Your task to perform on an android device: install app "TextNow: Call + Text Unlimited" Image 0: 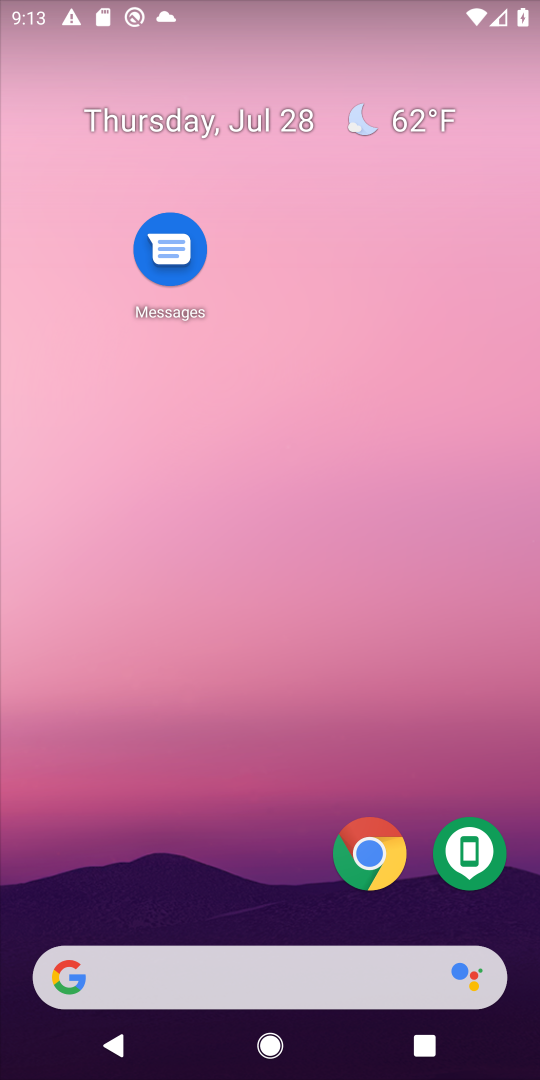
Step 0: click (320, 340)
Your task to perform on an android device: install app "TextNow: Call + Text Unlimited" Image 1: 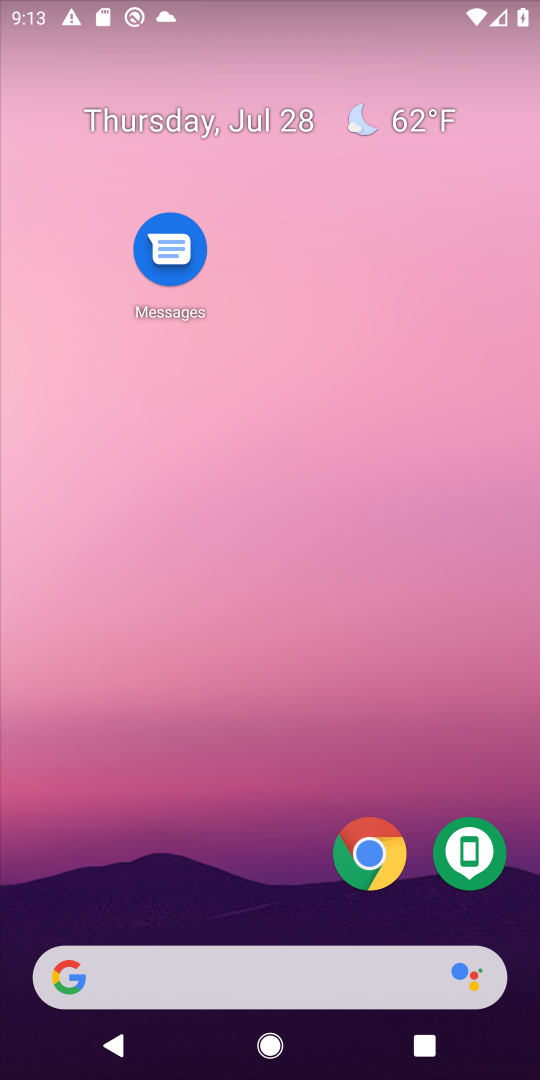
Step 1: click (284, 187)
Your task to perform on an android device: install app "TextNow: Call + Text Unlimited" Image 2: 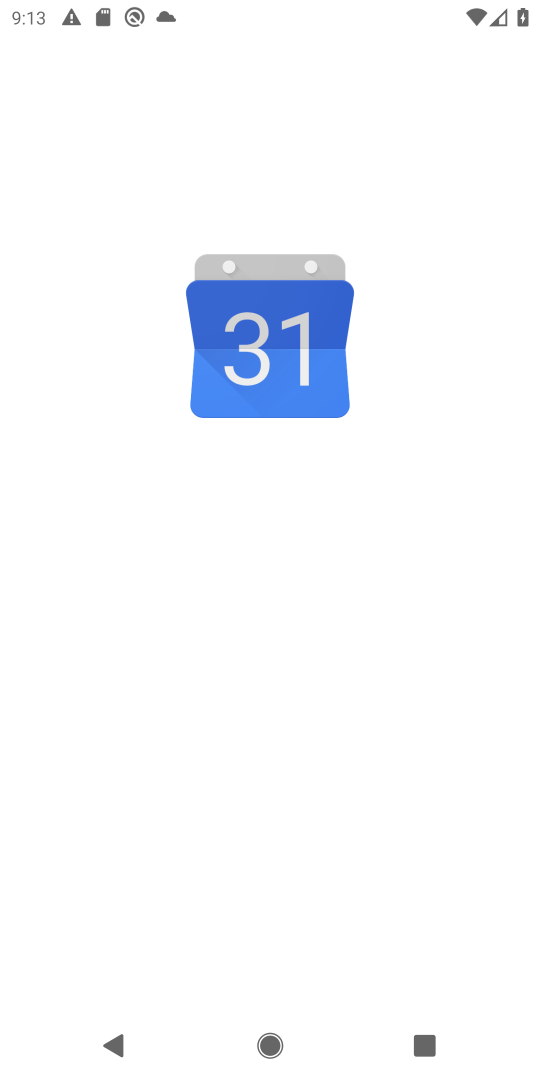
Step 2: drag from (251, 837) to (306, 333)
Your task to perform on an android device: install app "TextNow: Call + Text Unlimited" Image 3: 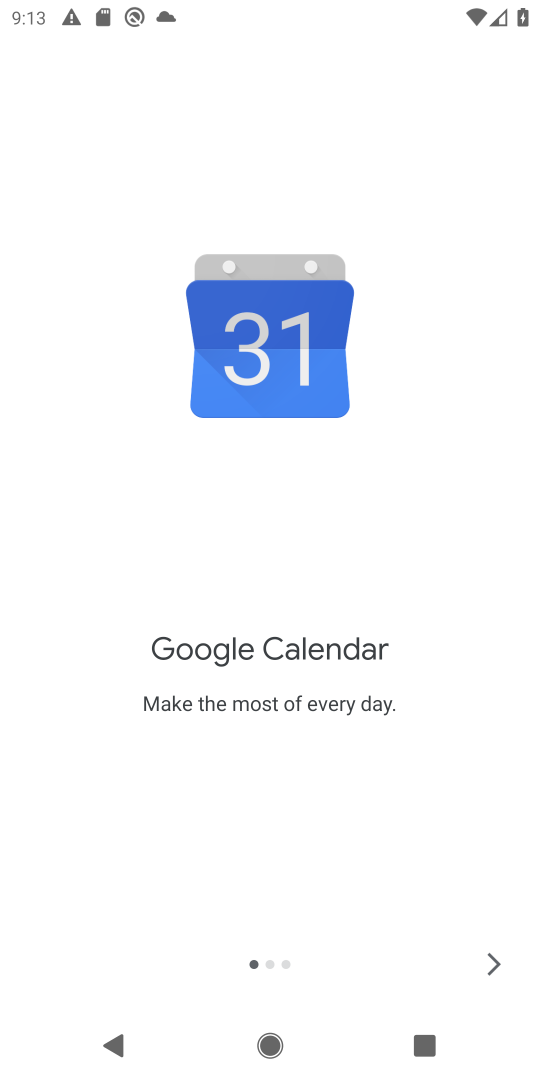
Step 3: press home button
Your task to perform on an android device: install app "TextNow: Call + Text Unlimited" Image 4: 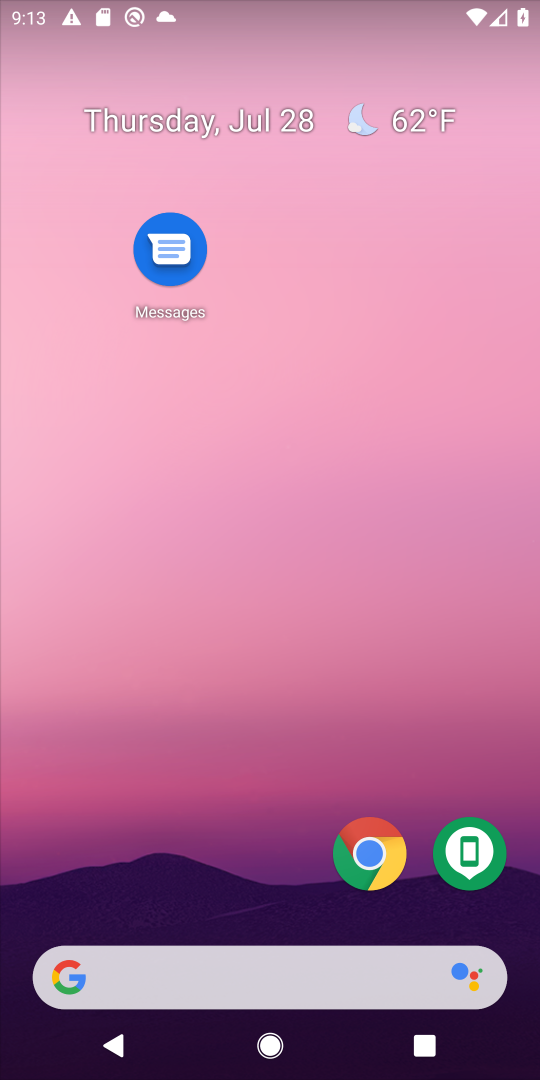
Step 4: drag from (247, 888) to (264, 296)
Your task to perform on an android device: install app "TextNow: Call + Text Unlimited" Image 5: 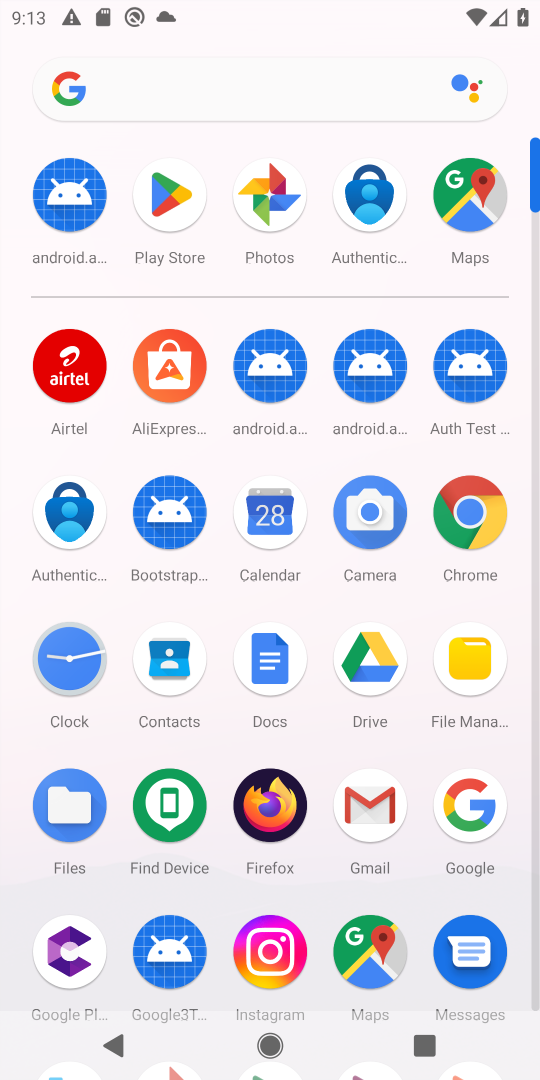
Step 5: click (168, 210)
Your task to perform on an android device: install app "TextNow: Call + Text Unlimited" Image 6: 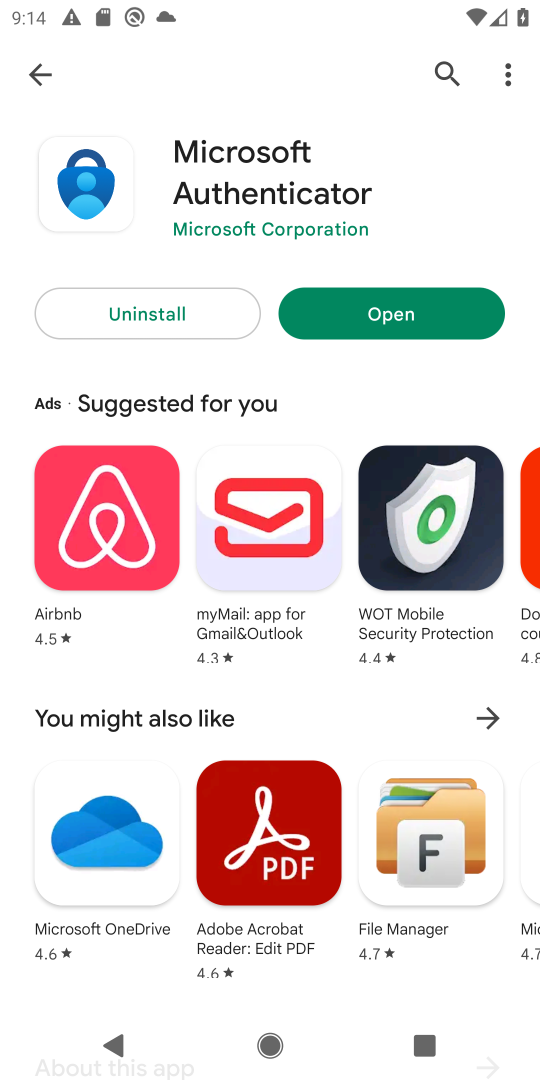
Step 6: click (48, 75)
Your task to perform on an android device: install app "TextNow: Call + Text Unlimited" Image 7: 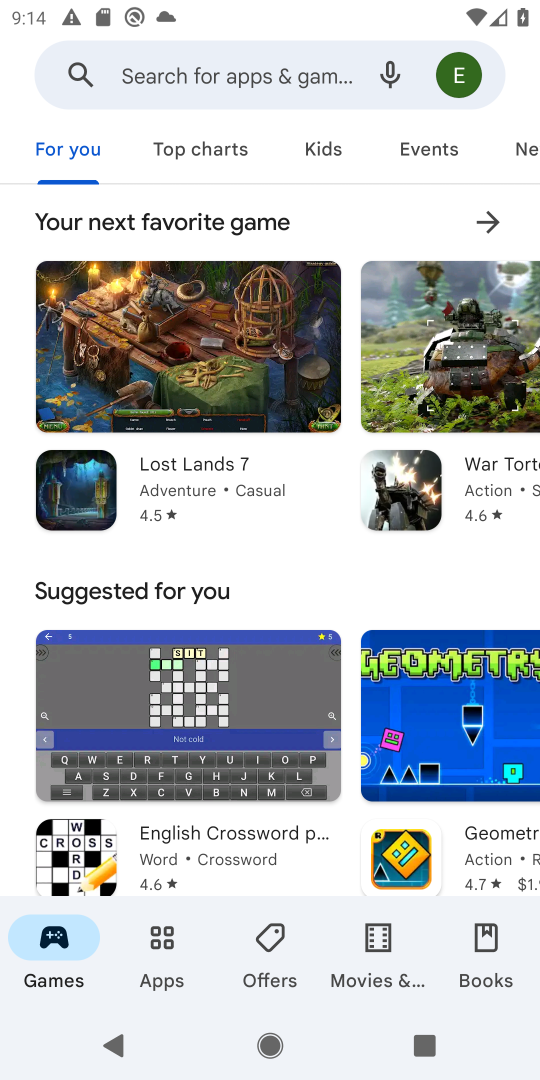
Step 7: click (228, 62)
Your task to perform on an android device: install app "TextNow: Call + Text Unlimited" Image 8: 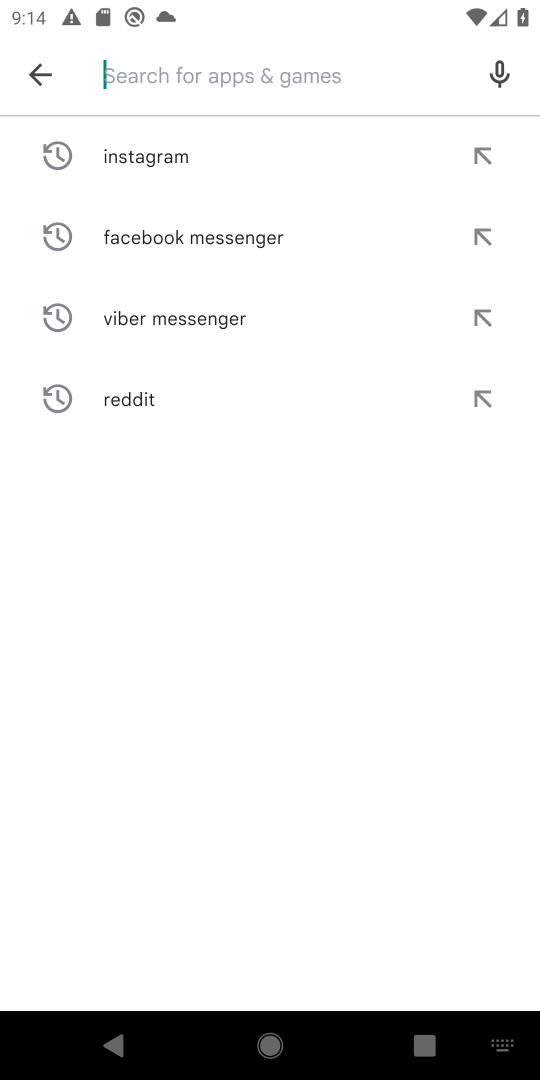
Step 8: type "TextNow: Call + Text Unlimited"
Your task to perform on an android device: install app "TextNow: Call + Text Unlimited" Image 9: 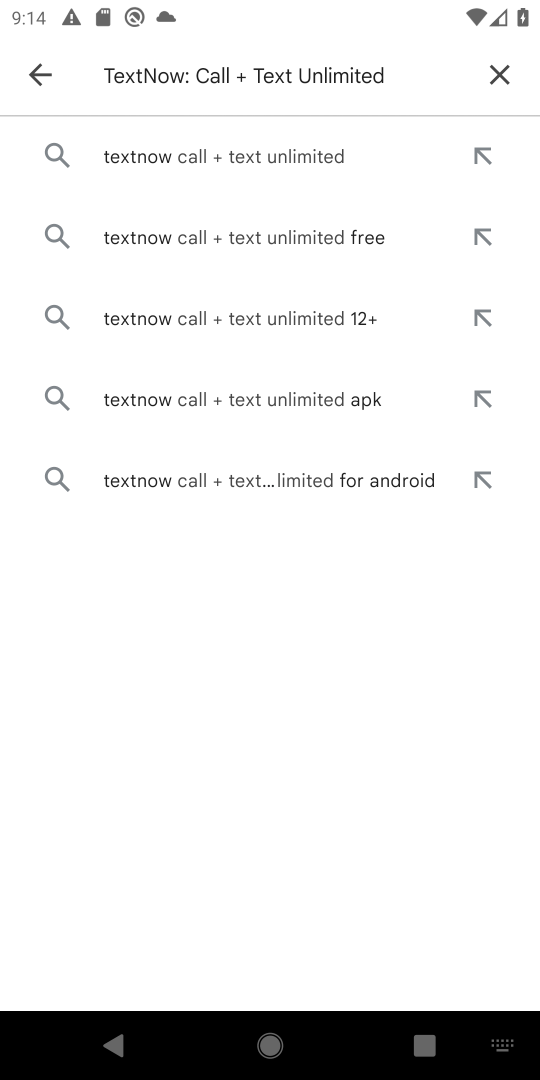
Step 9: click (229, 157)
Your task to perform on an android device: install app "TextNow: Call + Text Unlimited" Image 10: 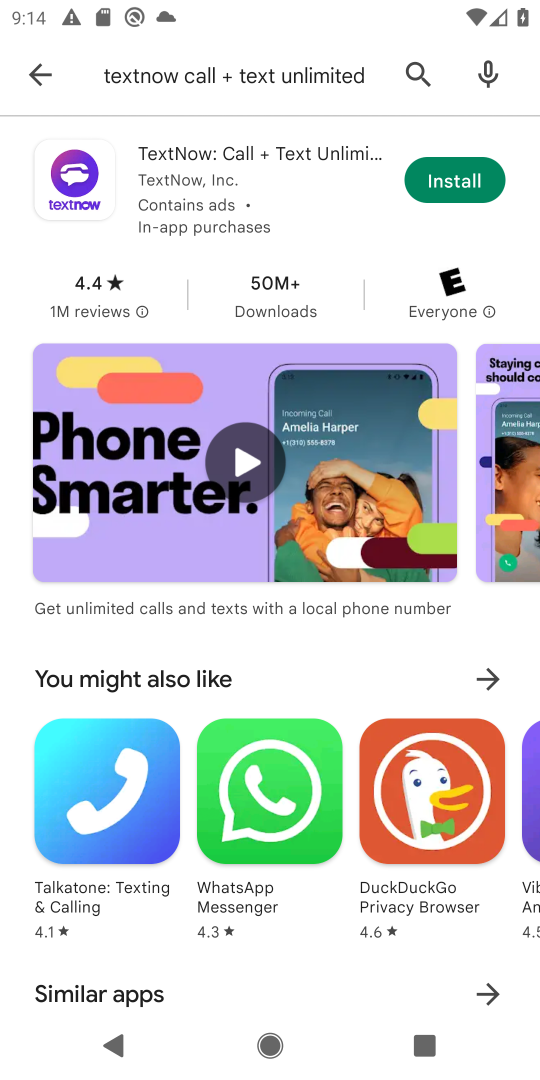
Step 10: click (229, 157)
Your task to perform on an android device: install app "TextNow: Call + Text Unlimited" Image 11: 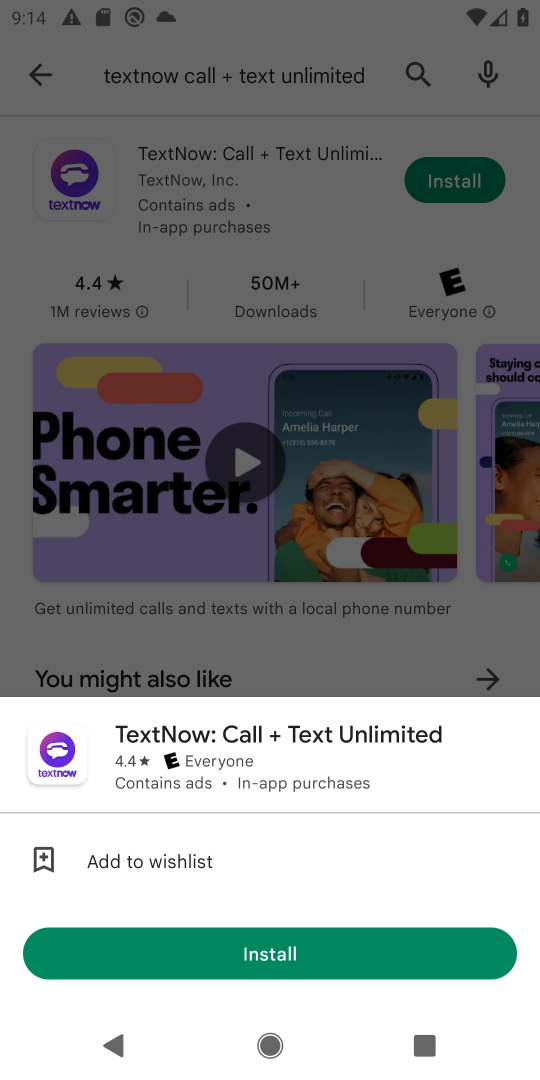
Step 11: click (290, 957)
Your task to perform on an android device: install app "TextNow: Call + Text Unlimited" Image 12: 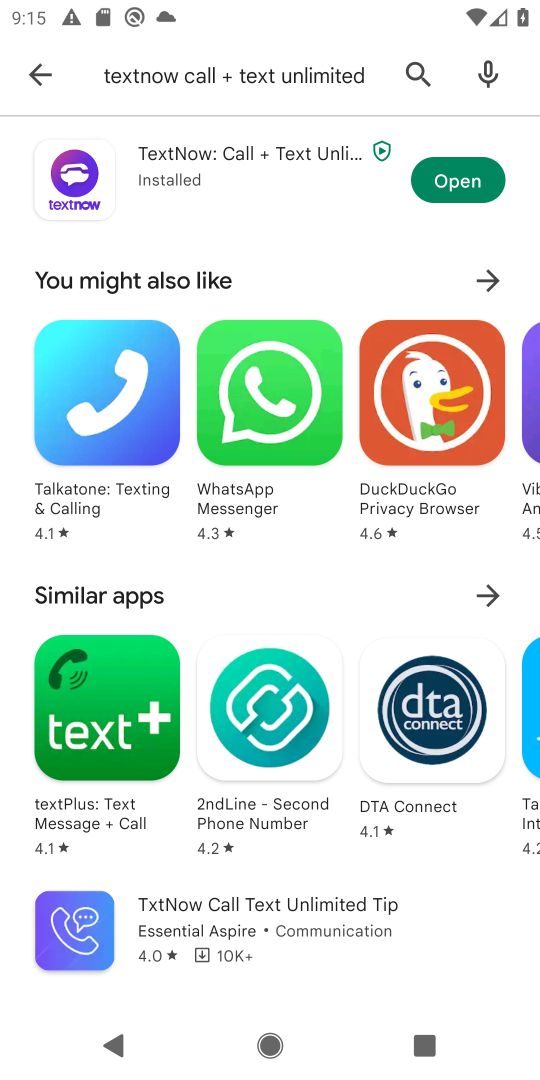
Step 12: task complete